Your task to perform on an android device: What's on my calendar today? Image 0: 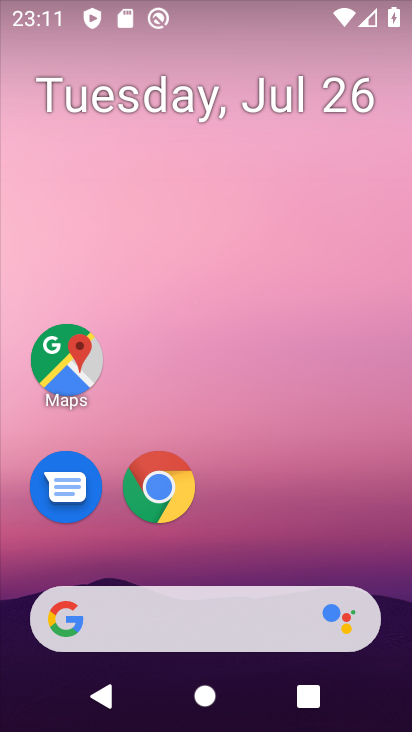
Step 0: drag from (242, 475) to (276, 6)
Your task to perform on an android device: What's on my calendar today? Image 1: 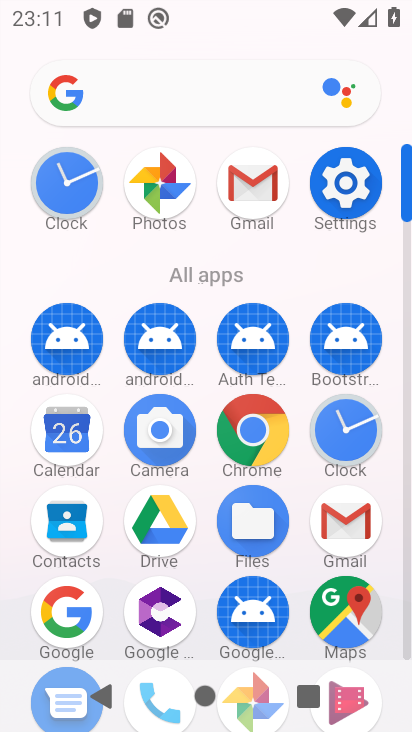
Step 1: click (67, 440)
Your task to perform on an android device: What's on my calendar today? Image 2: 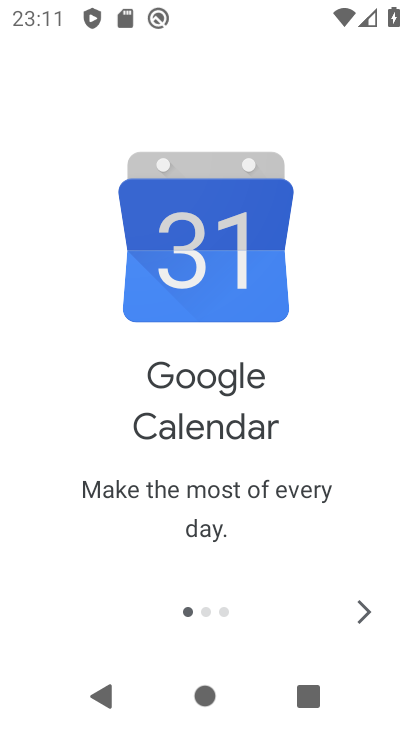
Step 2: click (362, 596)
Your task to perform on an android device: What's on my calendar today? Image 3: 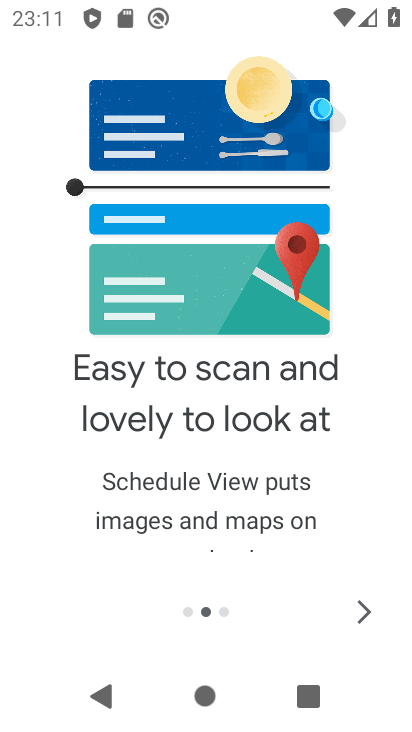
Step 3: click (355, 614)
Your task to perform on an android device: What's on my calendar today? Image 4: 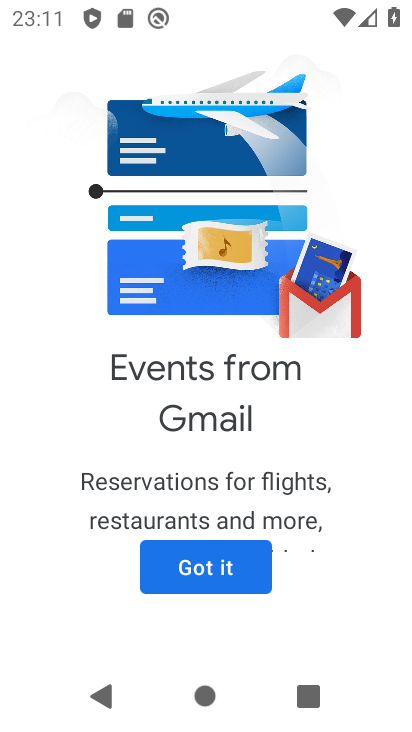
Step 4: click (153, 557)
Your task to perform on an android device: What's on my calendar today? Image 5: 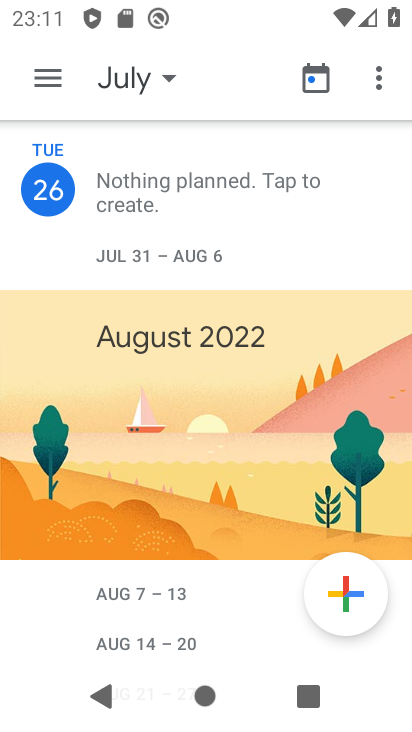
Step 5: task complete